Your task to perform on an android device: Open sound settings Image 0: 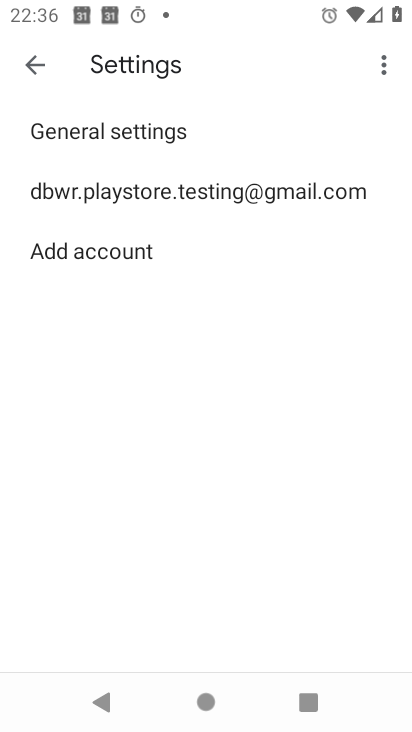
Step 0: press home button
Your task to perform on an android device: Open sound settings Image 1: 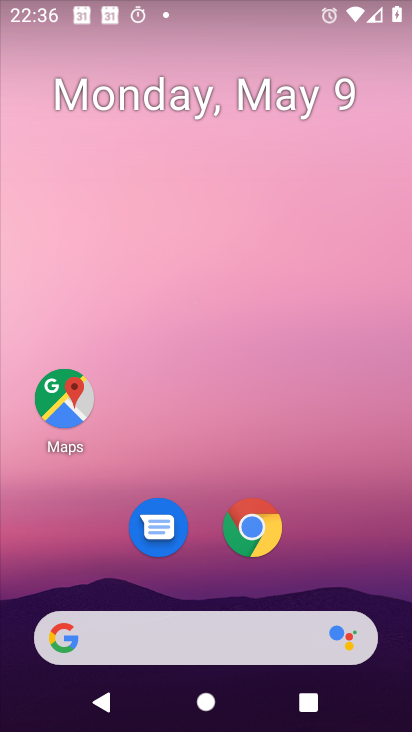
Step 1: drag from (199, 572) to (223, 140)
Your task to perform on an android device: Open sound settings Image 2: 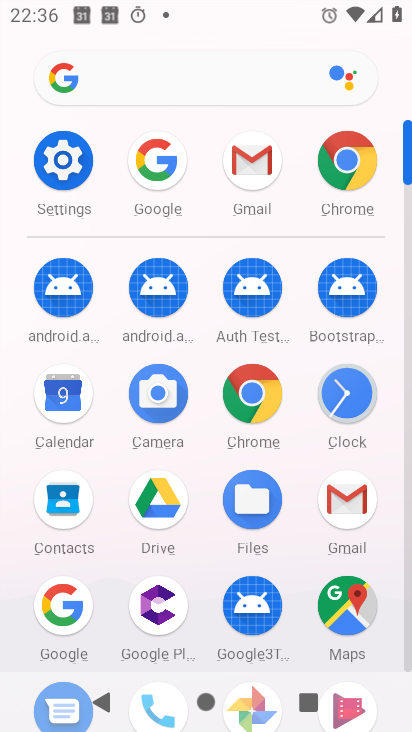
Step 2: click (67, 165)
Your task to perform on an android device: Open sound settings Image 3: 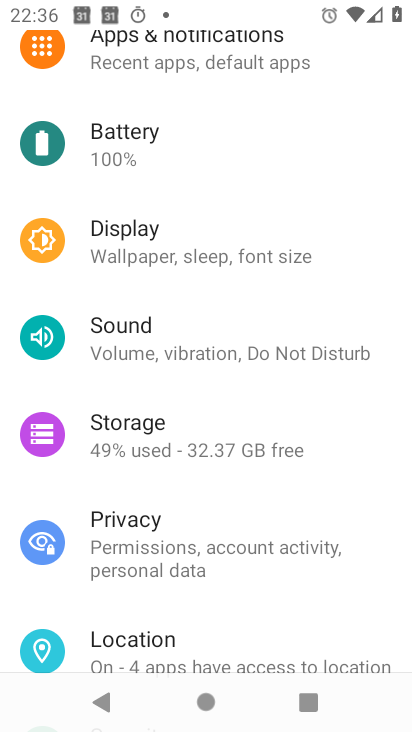
Step 3: click (177, 335)
Your task to perform on an android device: Open sound settings Image 4: 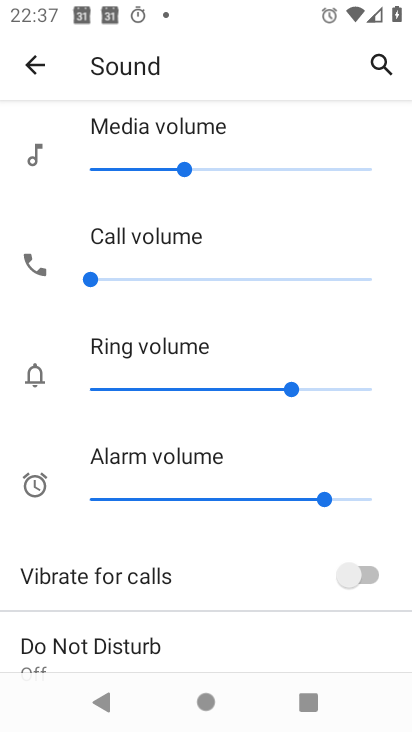
Step 4: task complete